Your task to perform on an android device: Open location settings Image 0: 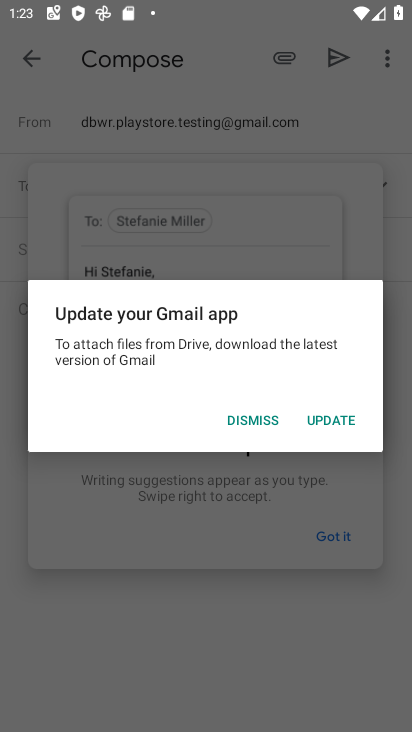
Step 0: press home button
Your task to perform on an android device: Open location settings Image 1: 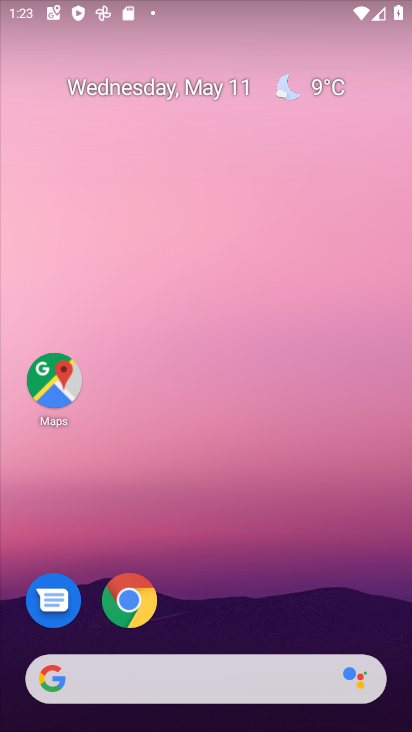
Step 1: drag from (265, 677) to (361, 86)
Your task to perform on an android device: Open location settings Image 2: 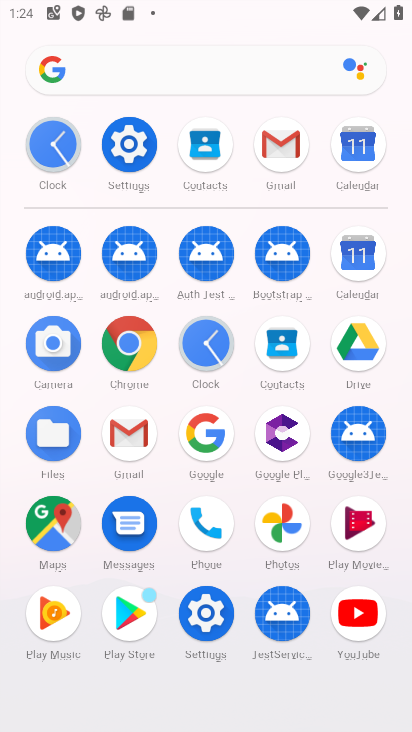
Step 2: click (127, 152)
Your task to perform on an android device: Open location settings Image 3: 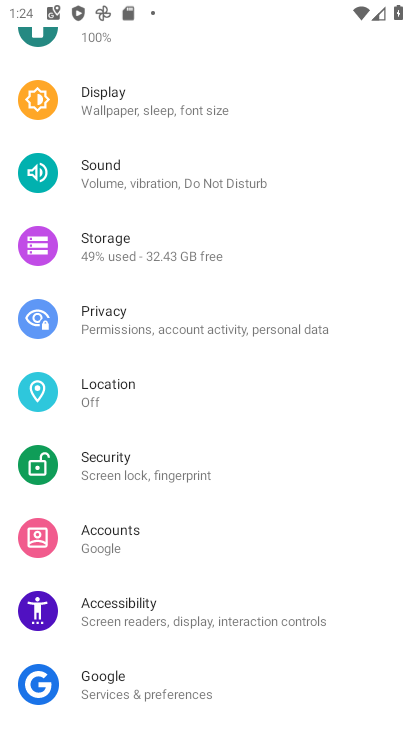
Step 3: click (112, 386)
Your task to perform on an android device: Open location settings Image 4: 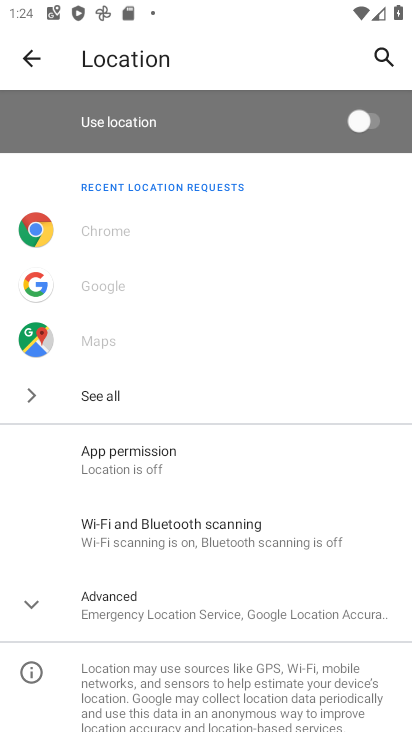
Step 4: task complete